Your task to perform on an android device: Clear all items from cart on amazon.com. Image 0: 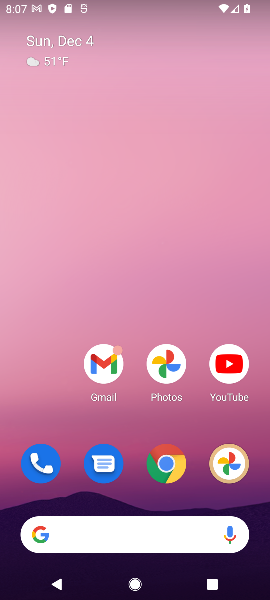
Step 0: click (114, 543)
Your task to perform on an android device: Clear all items from cart on amazon.com. Image 1: 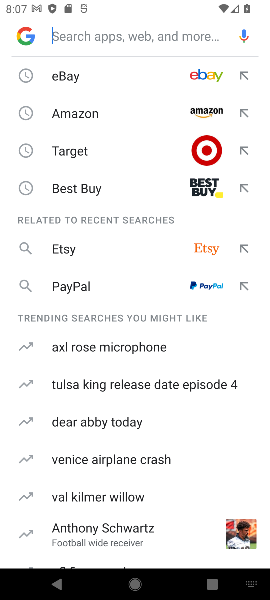
Step 1: click (106, 105)
Your task to perform on an android device: Clear all items from cart on amazon.com. Image 2: 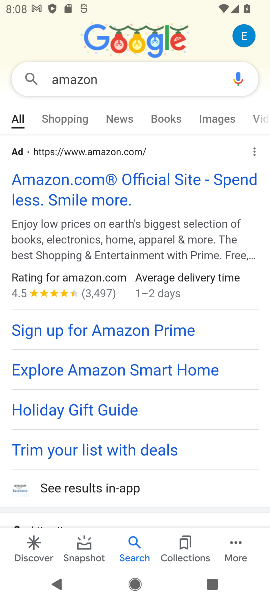
Step 2: click (125, 179)
Your task to perform on an android device: Clear all items from cart on amazon.com. Image 3: 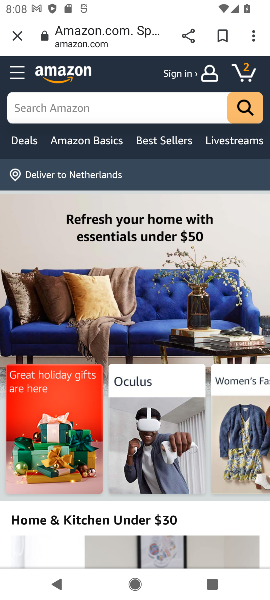
Step 3: click (90, 106)
Your task to perform on an android device: Clear all items from cart on amazon.com. Image 4: 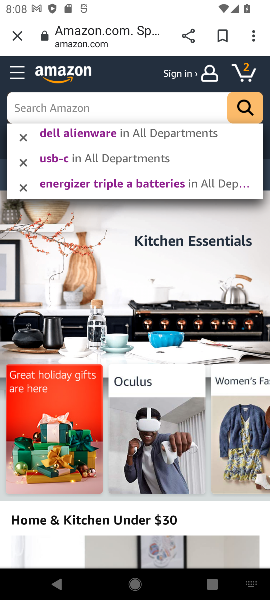
Step 4: click (245, 73)
Your task to perform on an android device: Clear all items from cart on amazon.com. Image 5: 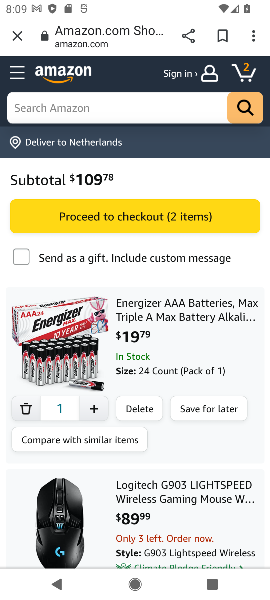
Step 5: task complete